Your task to perform on an android device: Open the web browser Image 0: 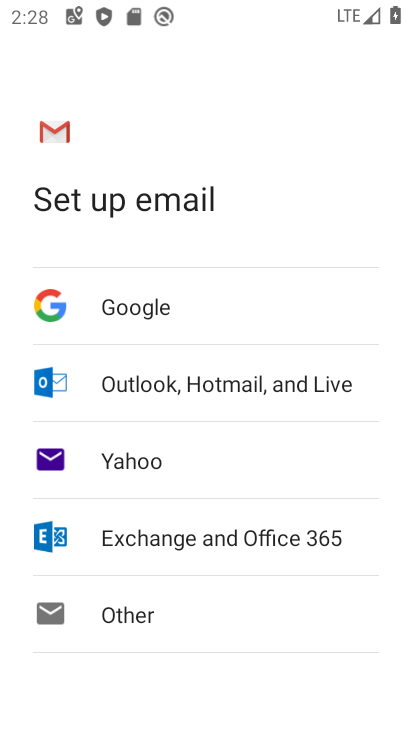
Step 0: press home button
Your task to perform on an android device: Open the web browser Image 1: 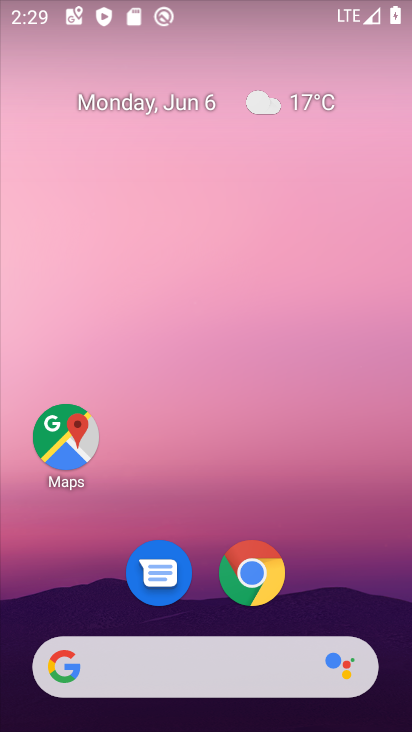
Step 1: drag from (380, 583) to (394, 92)
Your task to perform on an android device: Open the web browser Image 2: 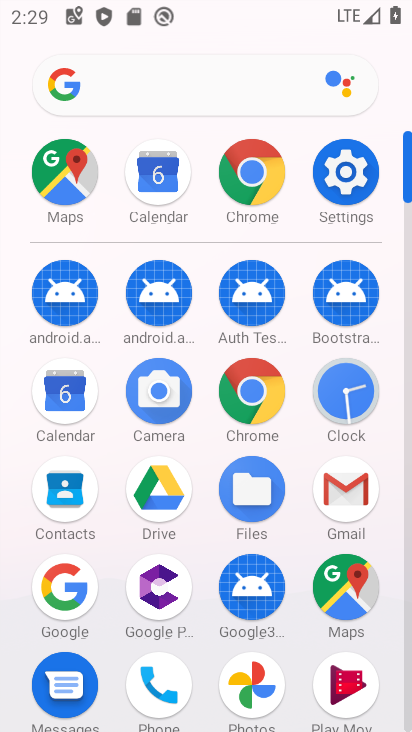
Step 2: click (268, 180)
Your task to perform on an android device: Open the web browser Image 3: 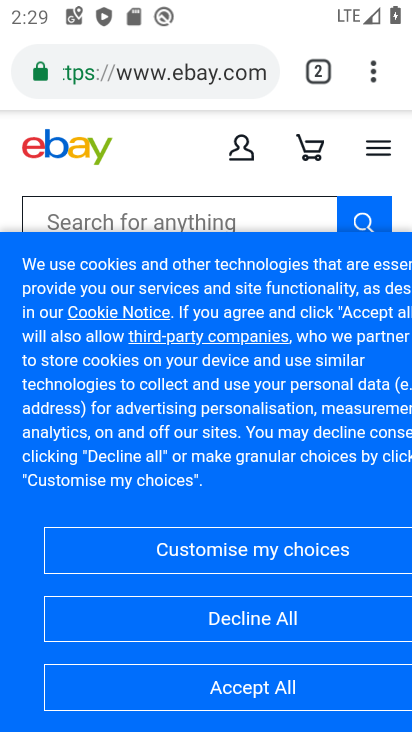
Step 3: task complete